Your task to perform on an android device: Go to accessibility settings Image 0: 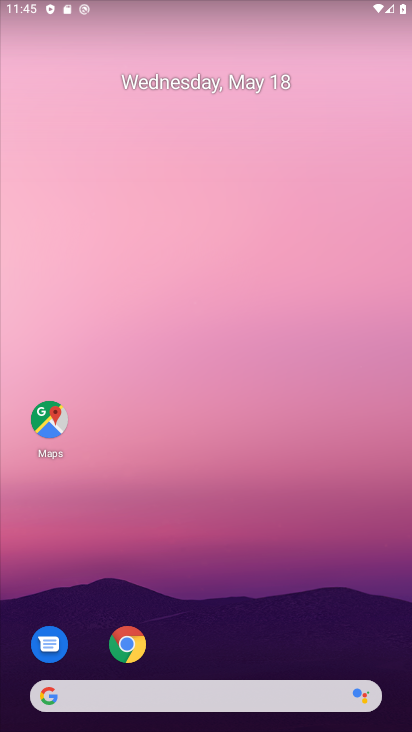
Step 0: drag from (336, 533) to (339, 189)
Your task to perform on an android device: Go to accessibility settings Image 1: 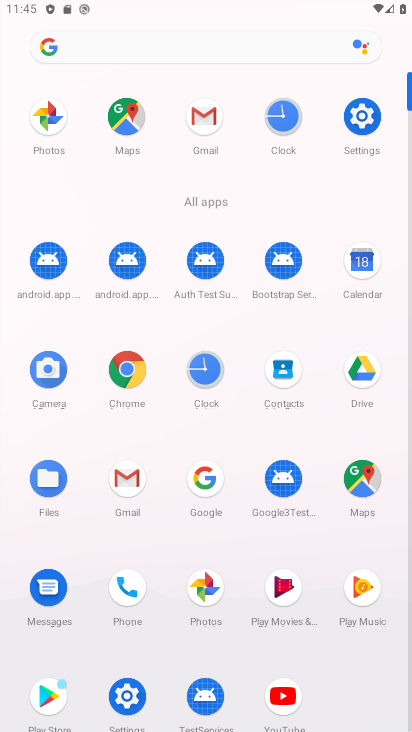
Step 1: click (383, 121)
Your task to perform on an android device: Go to accessibility settings Image 2: 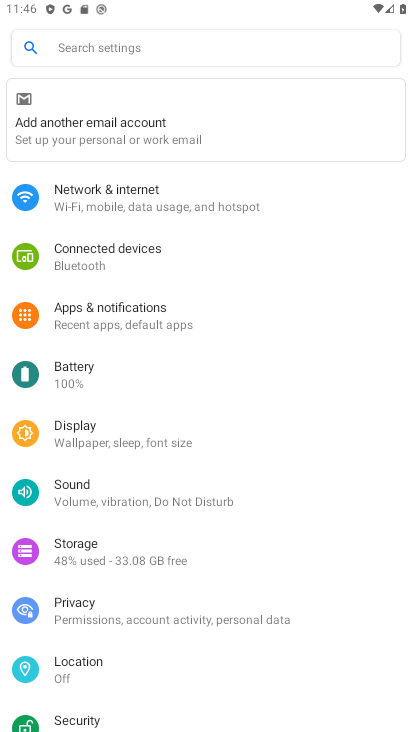
Step 2: drag from (245, 524) to (301, 217)
Your task to perform on an android device: Go to accessibility settings Image 3: 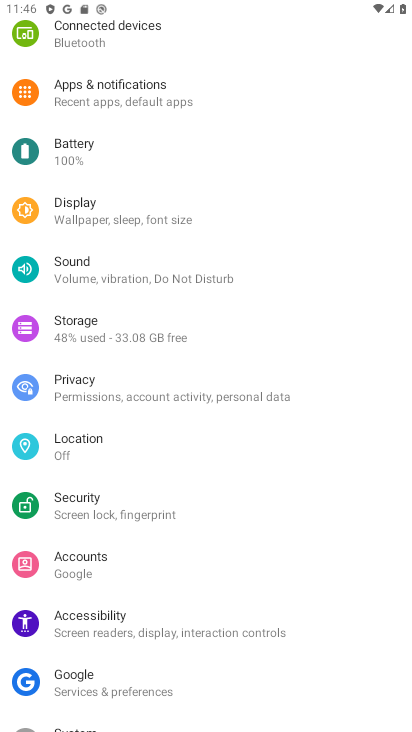
Step 3: click (176, 615)
Your task to perform on an android device: Go to accessibility settings Image 4: 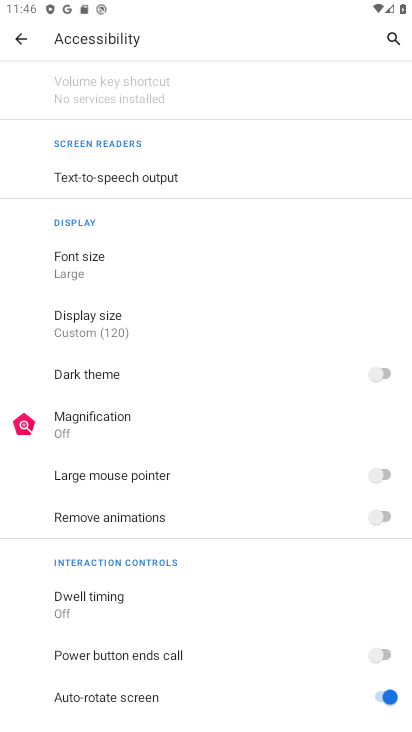
Step 4: task complete